Your task to perform on an android device: change the clock display to digital Image 0: 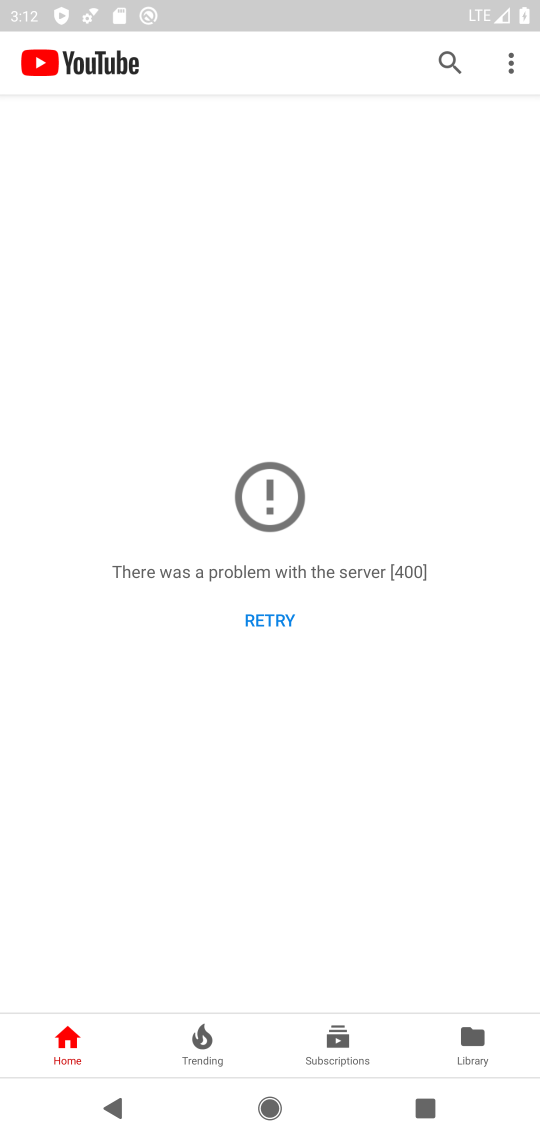
Step 0: press home button
Your task to perform on an android device: change the clock display to digital Image 1: 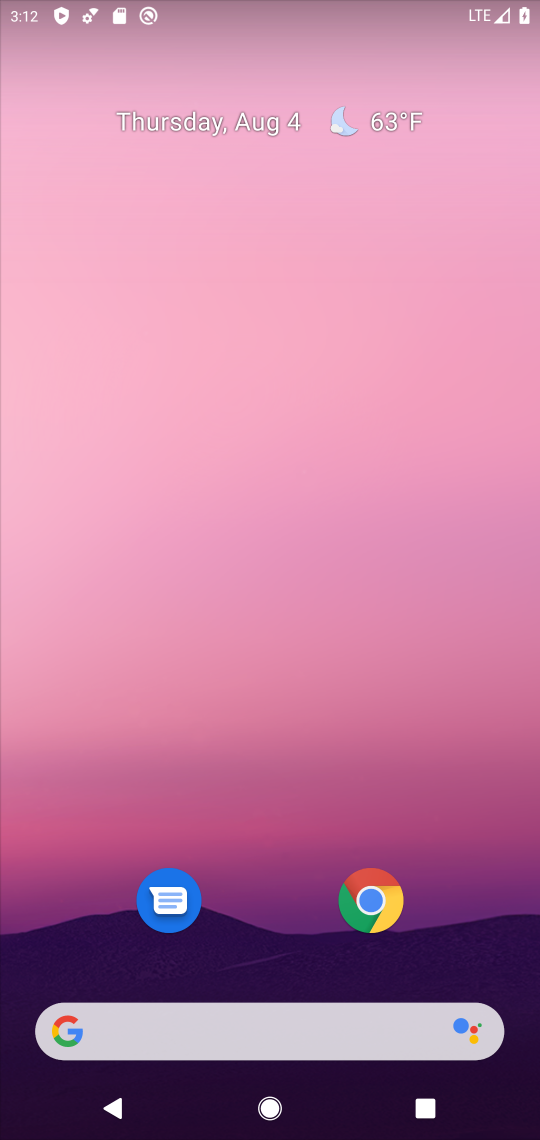
Step 1: drag from (492, 946) to (347, 247)
Your task to perform on an android device: change the clock display to digital Image 2: 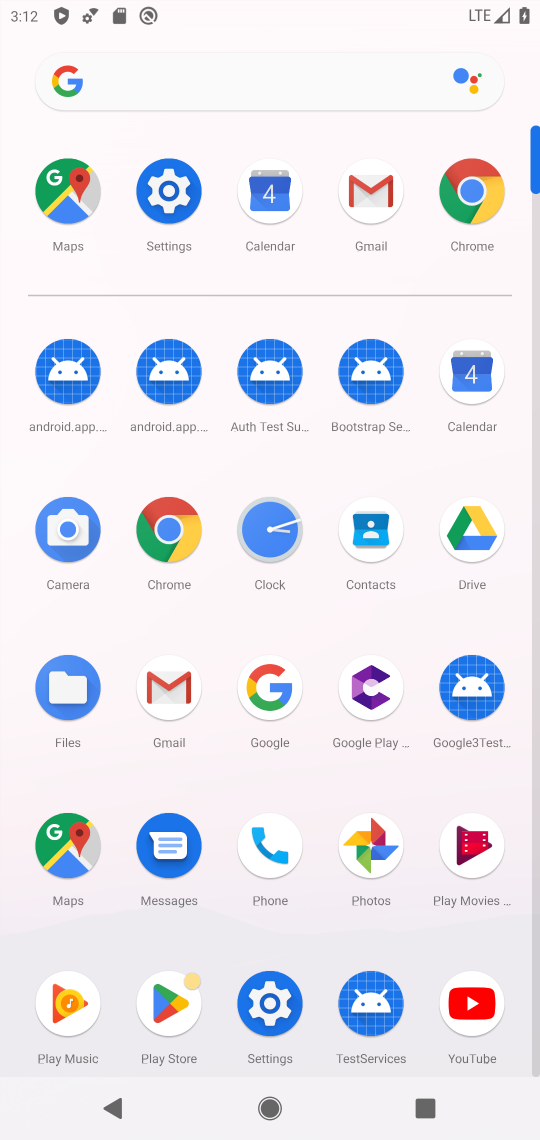
Step 2: click (246, 547)
Your task to perform on an android device: change the clock display to digital Image 3: 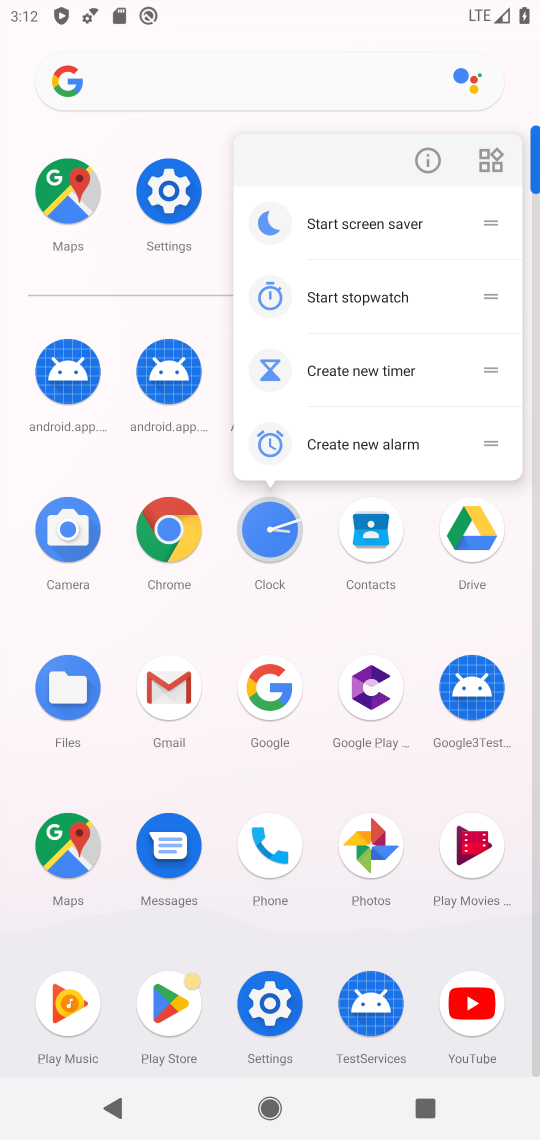
Step 3: click (280, 556)
Your task to perform on an android device: change the clock display to digital Image 4: 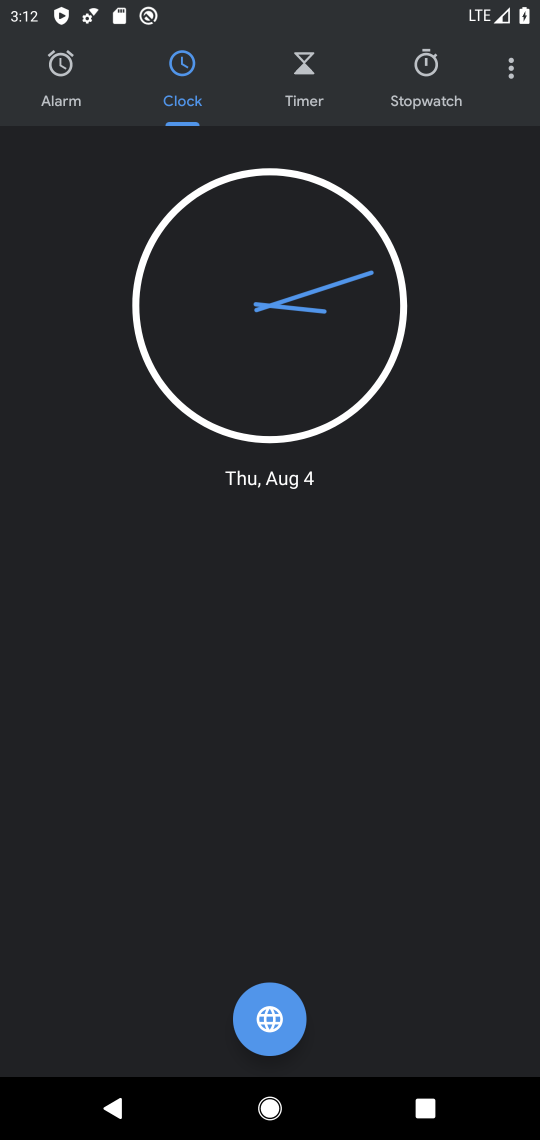
Step 4: click (512, 73)
Your task to perform on an android device: change the clock display to digital Image 5: 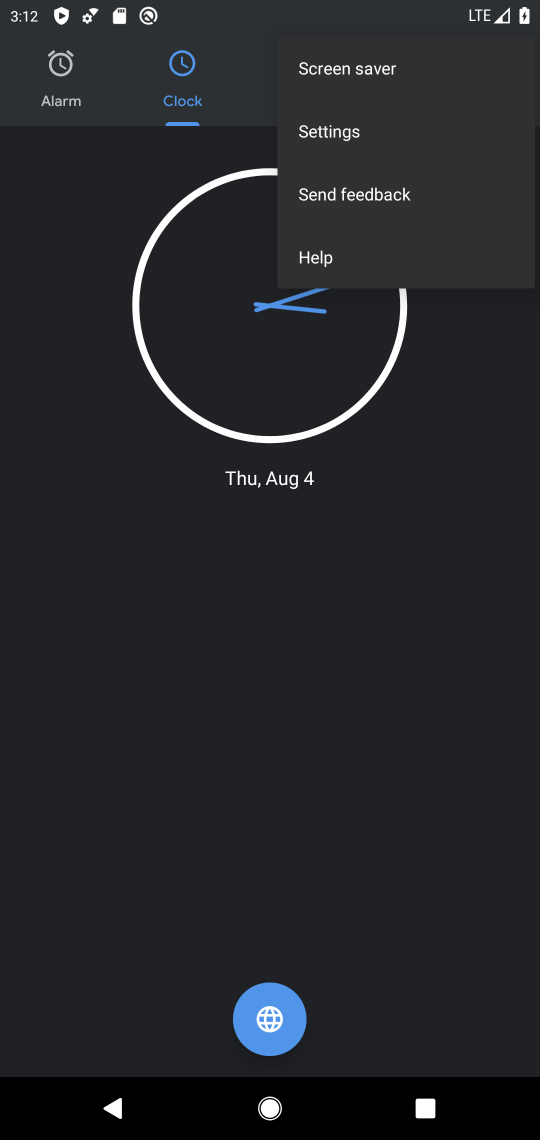
Step 5: click (397, 128)
Your task to perform on an android device: change the clock display to digital Image 6: 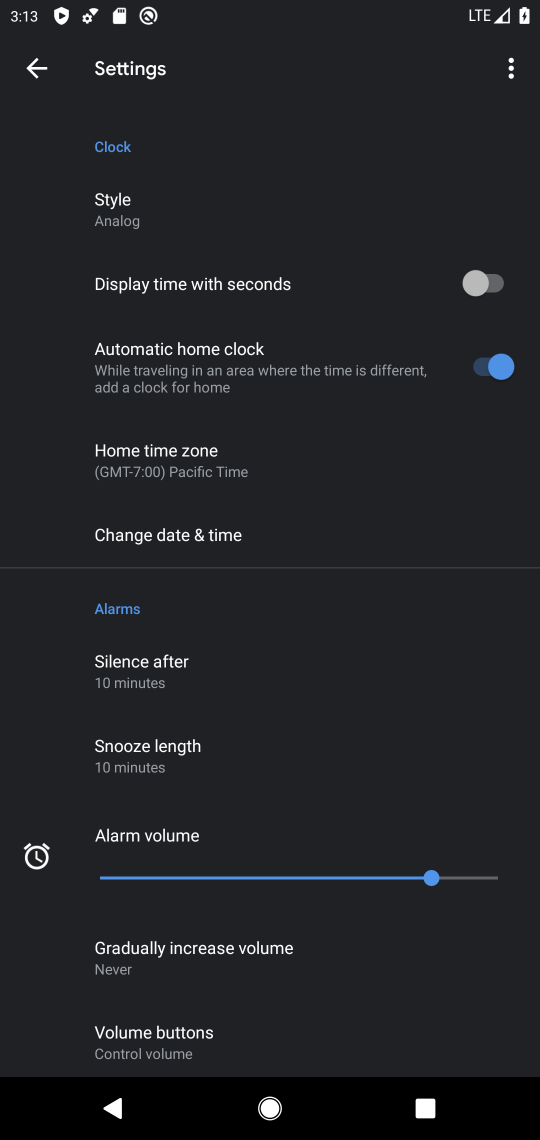
Step 6: click (255, 230)
Your task to perform on an android device: change the clock display to digital Image 7: 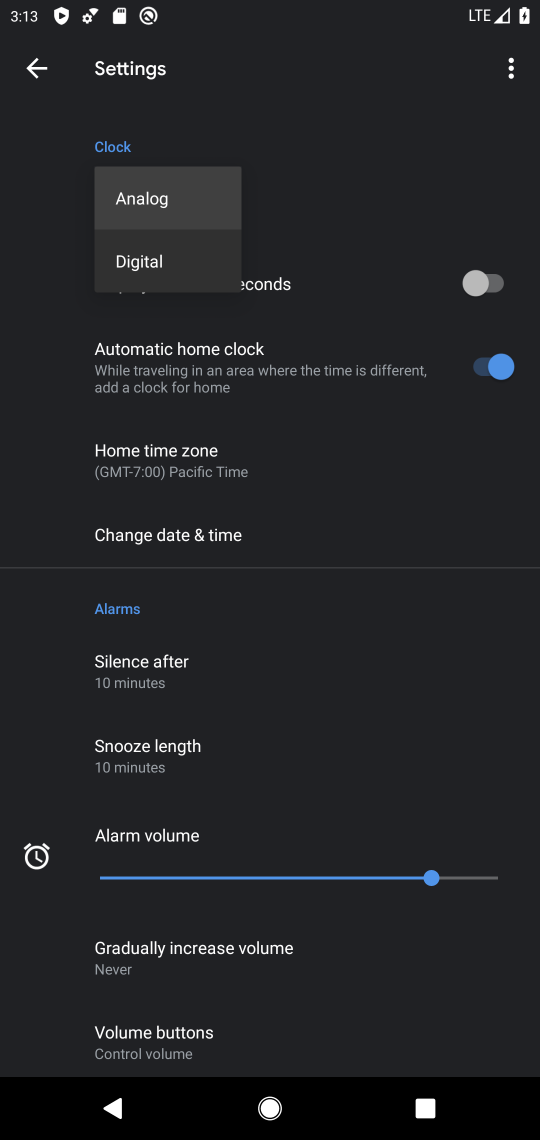
Step 7: click (202, 268)
Your task to perform on an android device: change the clock display to digital Image 8: 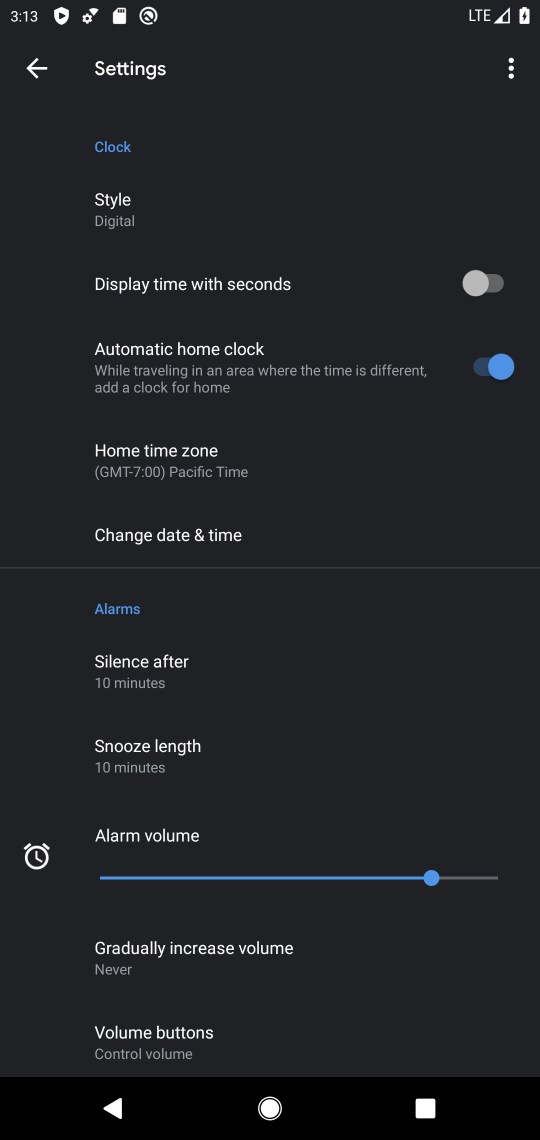
Step 8: task complete